Your task to perform on an android device: turn off improve location accuracy Image 0: 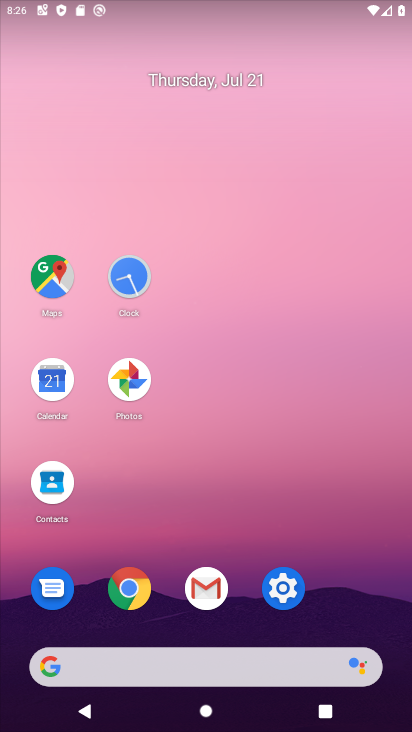
Step 0: click (283, 586)
Your task to perform on an android device: turn off improve location accuracy Image 1: 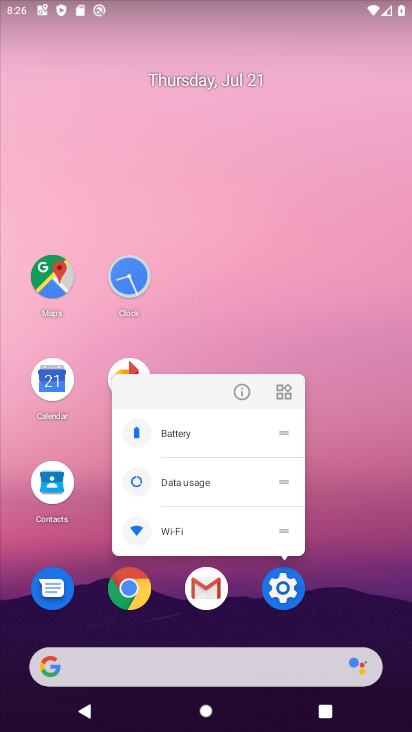
Step 1: click (280, 590)
Your task to perform on an android device: turn off improve location accuracy Image 2: 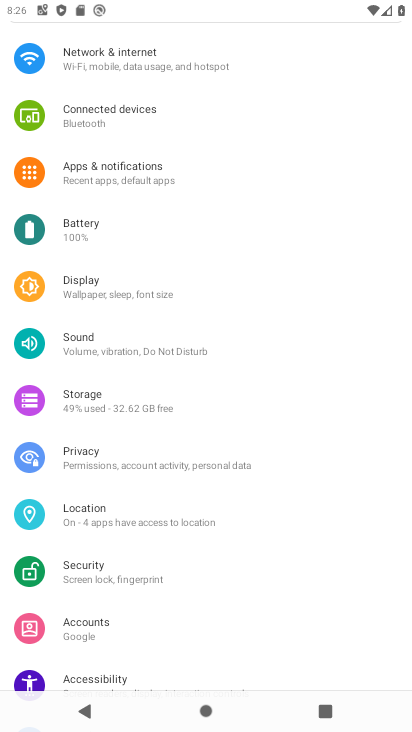
Step 2: click (82, 505)
Your task to perform on an android device: turn off improve location accuracy Image 3: 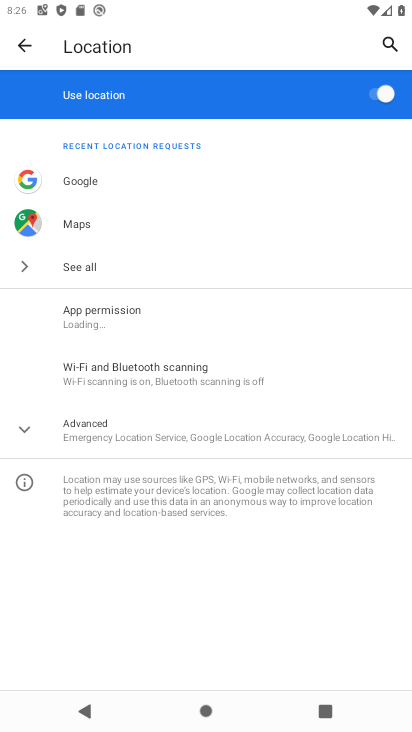
Step 3: click (33, 422)
Your task to perform on an android device: turn off improve location accuracy Image 4: 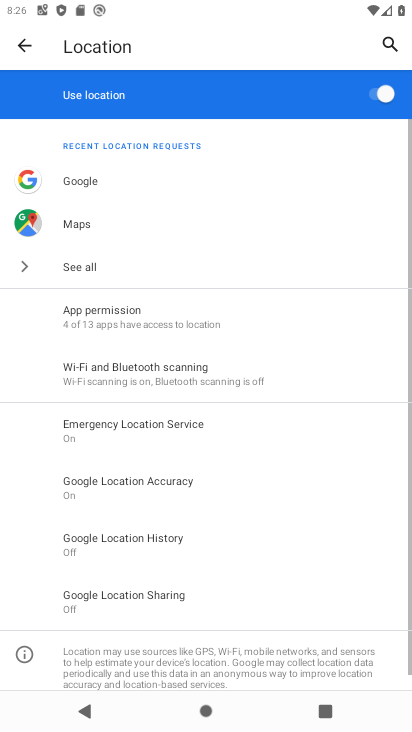
Step 4: click (131, 481)
Your task to perform on an android device: turn off improve location accuracy Image 5: 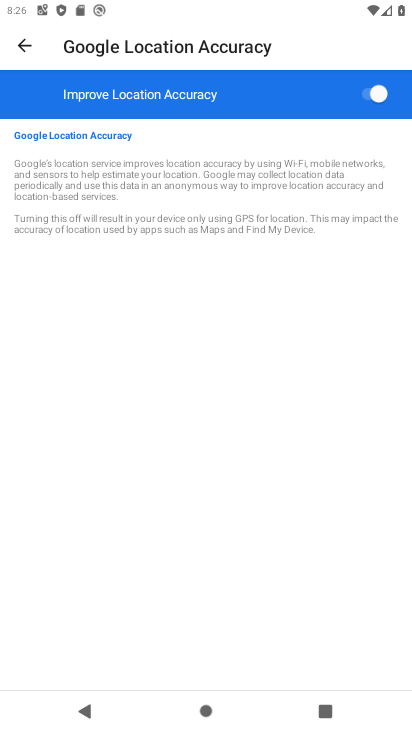
Step 5: click (375, 98)
Your task to perform on an android device: turn off improve location accuracy Image 6: 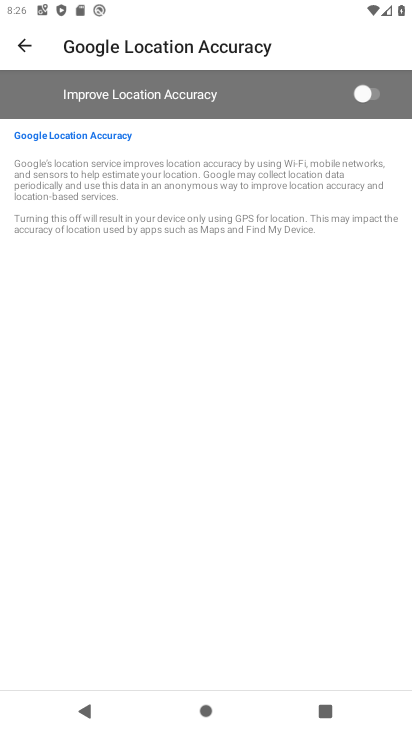
Step 6: task complete